Your task to perform on an android device: Search for vegetarian restaurants on Maps Image 0: 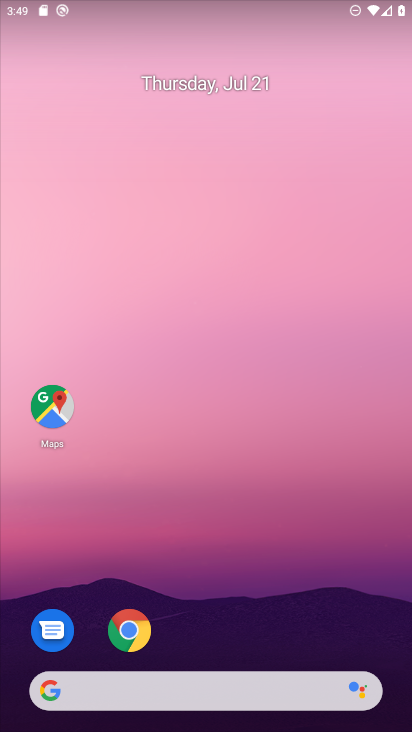
Step 0: click (45, 417)
Your task to perform on an android device: Search for vegetarian restaurants on Maps Image 1: 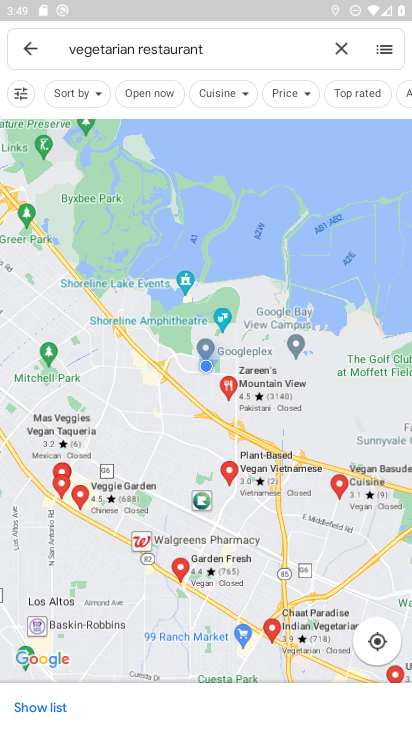
Step 1: task complete